Your task to perform on an android device: Go to Reddit.com Image 0: 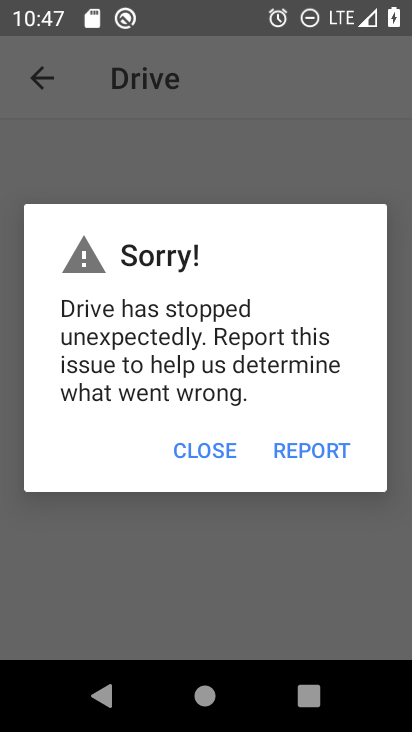
Step 0: press home button
Your task to perform on an android device: Go to Reddit.com Image 1: 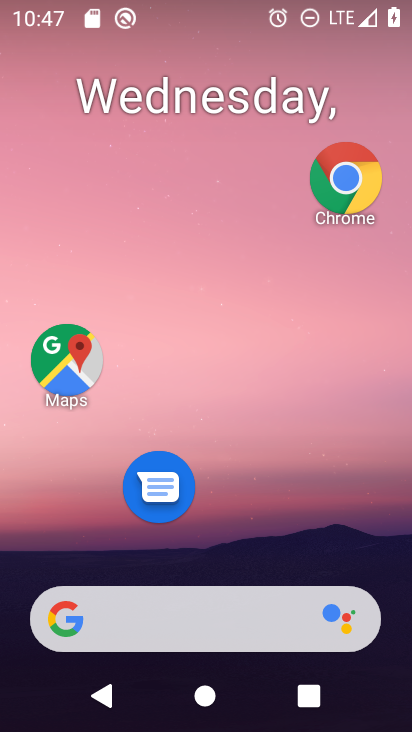
Step 1: drag from (232, 595) to (249, 107)
Your task to perform on an android device: Go to Reddit.com Image 2: 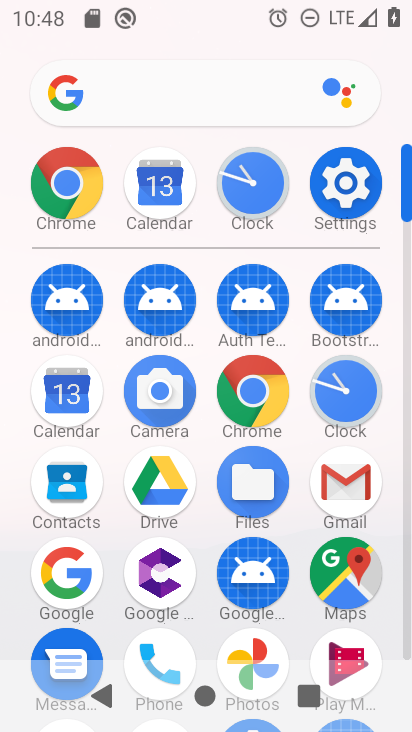
Step 2: click (248, 405)
Your task to perform on an android device: Go to Reddit.com Image 3: 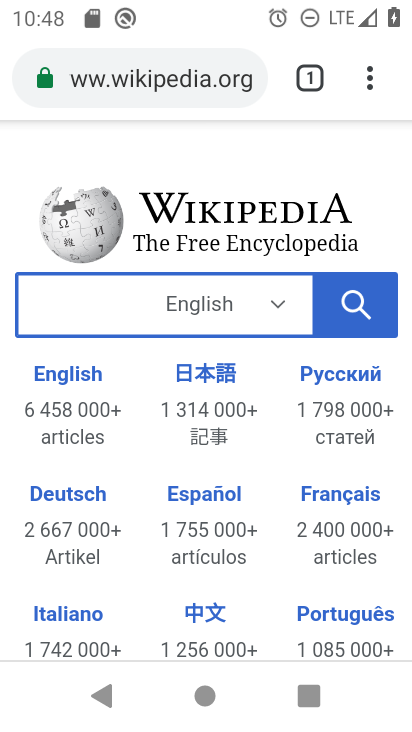
Step 3: click (252, 74)
Your task to perform on an android device: Go to Reddit.com Image 4: 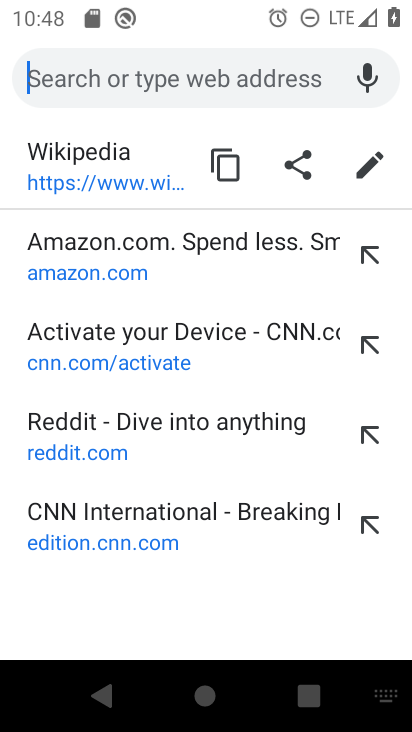
Step 4: type "reddit"
Your task to perform on an android device: Go to Reddit.com Image 5: 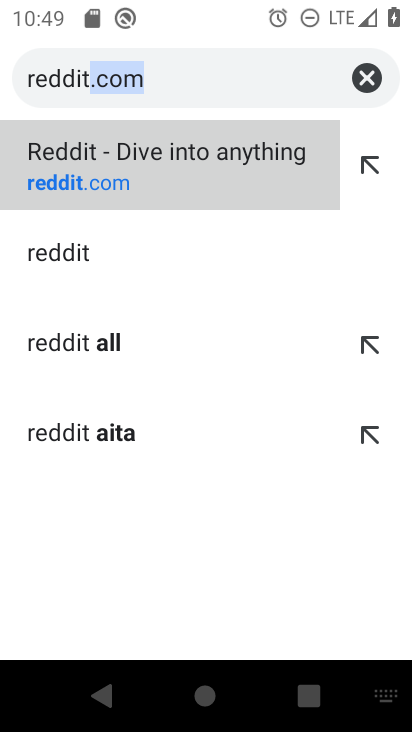
Step 5: click (232, 178)
Your task to perform on an android device: Go to Reddit.com Image 6: 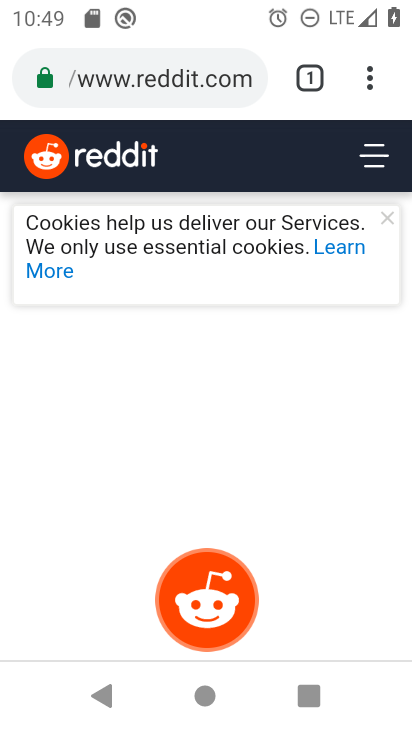
Step 6: task complete